Your task to perform on an android device: open app "Speedtest by Ookla" (install if not already installed) Image 0: 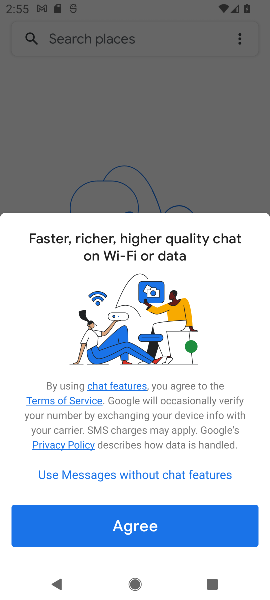
Step 0: press home button
Your task to perform on an android device: open app "Speedtest by Ookla" (install if not already installed) Image 1: 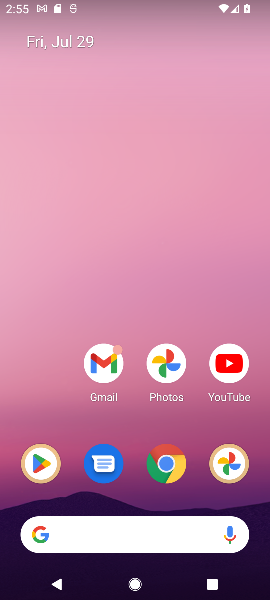
Step 1: drag from (92, 534) to (119, 156)
Your task to perform on an android device: open app "Speedtest by Ookla" (install if not already installed) Image 2: 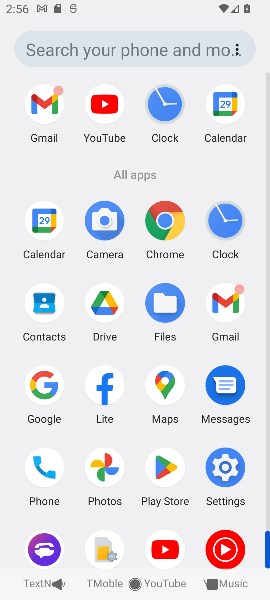
Step 2: click (163, 472)
Your task to perform on an android device: open app "Speedtest by Ookla" (install if not already installed) Image 3: 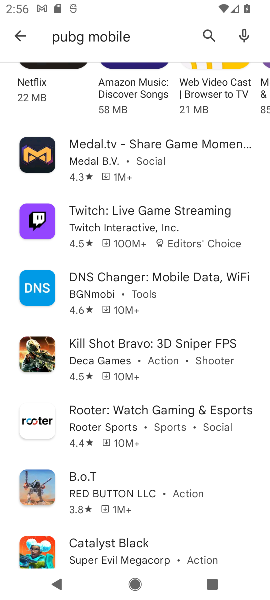
Step 3: drag from (141, 177) to (165, 413)
Your task to perform on an android device: open app "Speedtest by Ookla" (install if not already installed) Image 4: 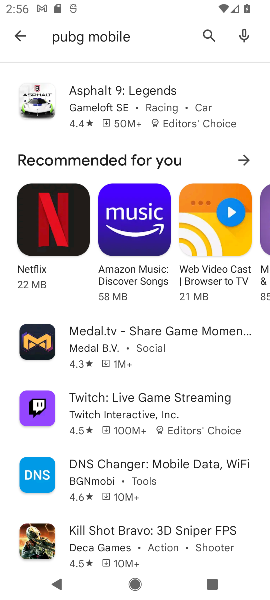
Step 4: click (216, 37)
Your task to perform on an android device: open app "Speedtest by Ookla" (install if not already installed) Image 5: 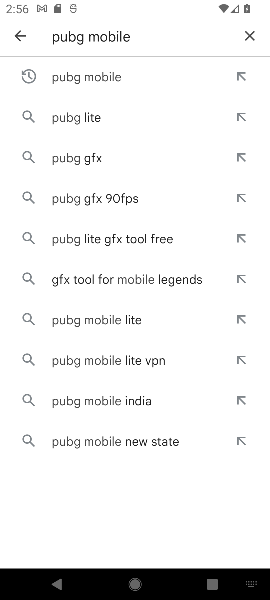
Step 5: click (247, 28)
Your task to perform on an android device: open app "Speedtest by Ookla" (install if not already installed) Image 6: 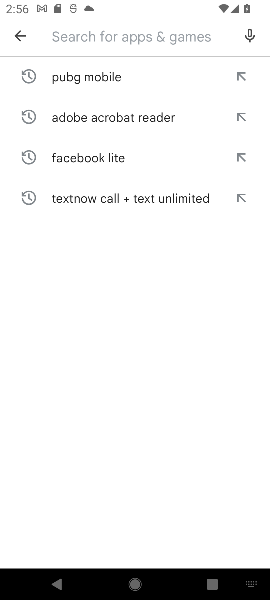
Step 6: type "Speedtest by Ookla"
Your task to perform on an android device: open app "Speedtest by Ookla" (install if not already installed) Image 7: 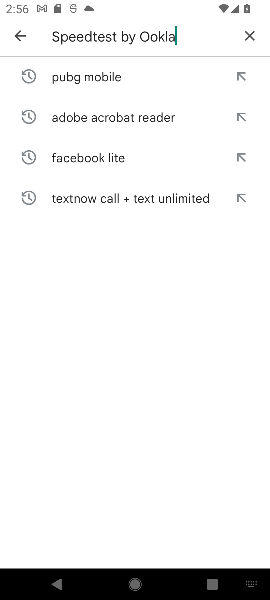
Step 7: type ""
Your task to perform on an android device: open app "Speedtest by Ookla" (install if not already installed) Image 8: 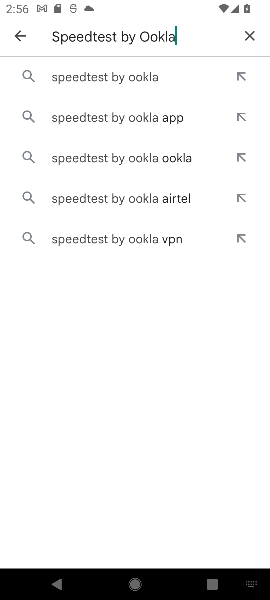
Step 8: click (134, 83)
Your task to perform on an android device: open app "Speedtest by Ookla" (install if not already installed) Image 9: 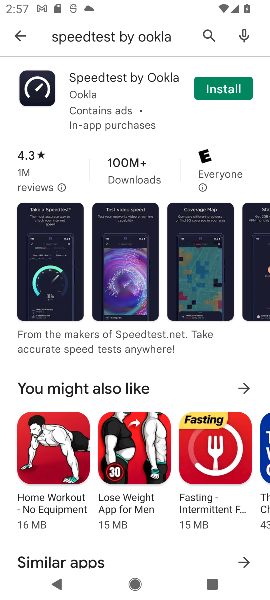
Step 9: click (223, 93)
Your task to perform on an android device: open app "Speedtest by Ookla" (install if not already installed) Image 10: 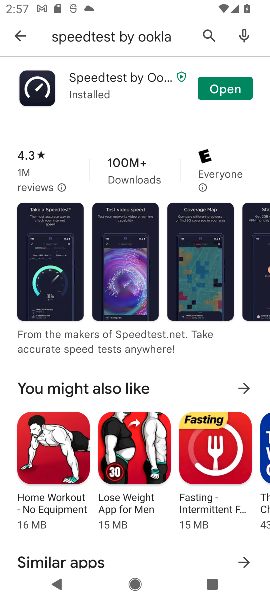
Step 10: click (232, 86)
Your task to perform on an android device: open app "Speedtest by Ookla" (install if not already installed) Image 11: 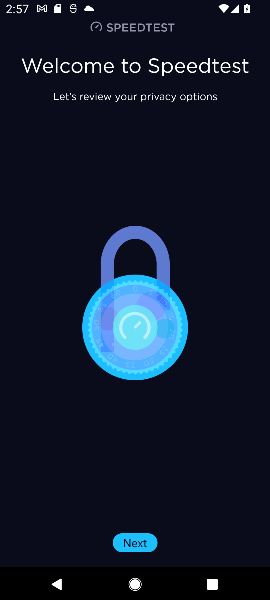
Step 11: task complete